Your task to perform on an android device: change the clock display to show seconds Image 0: 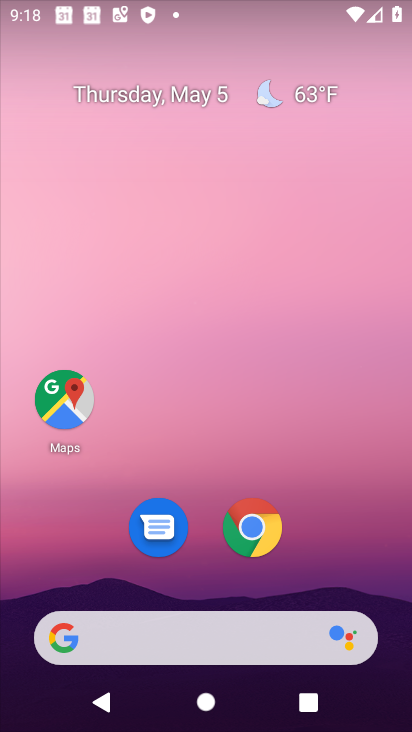
Step 0: drag from (261, 708) to (235, 2)
Your task to perform on an android device: change the clock display to show seconds Image 1: 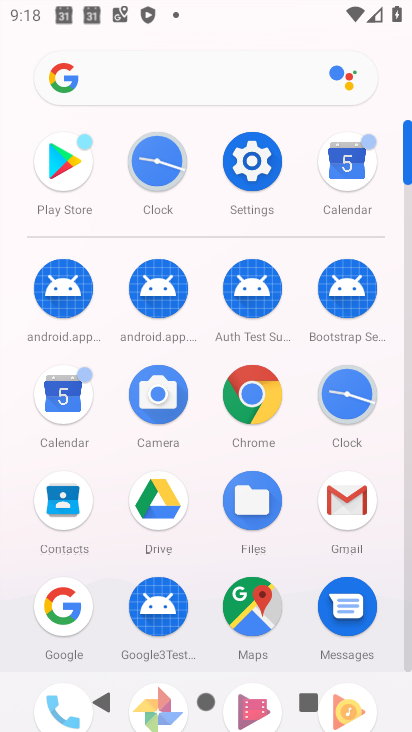
Step 1: click (342, 375)
Your task to perform on an android device: change the clock display to show seconds Image 2: 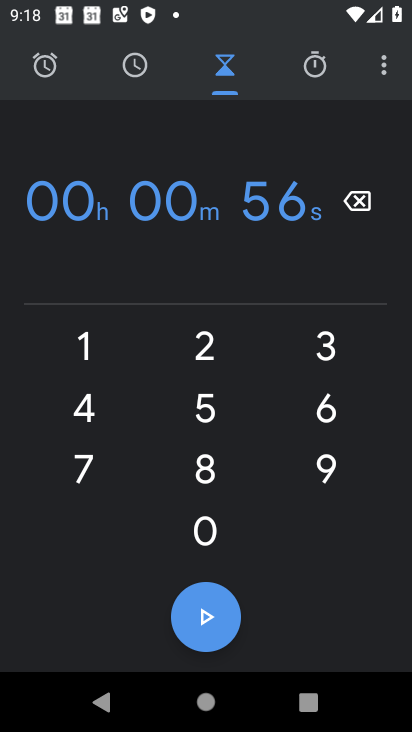
Step 2: click (383, 60)
Your task to perform on an android device: change the clock display to show seconds Image 3: 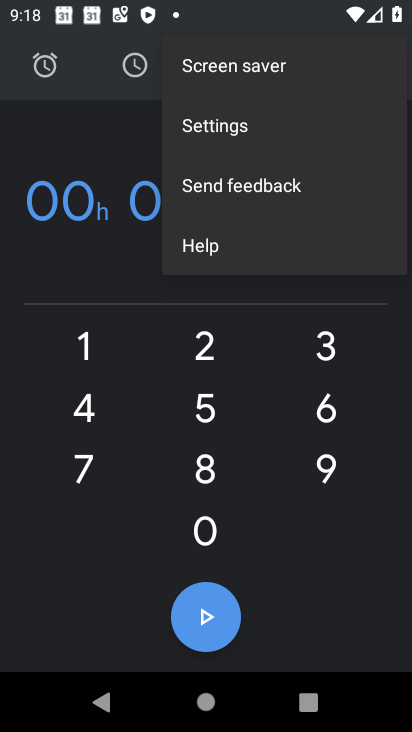
Step 3: click (240, 133)
Your task to perform on an android device: change the clock display to show seconds Image 4: 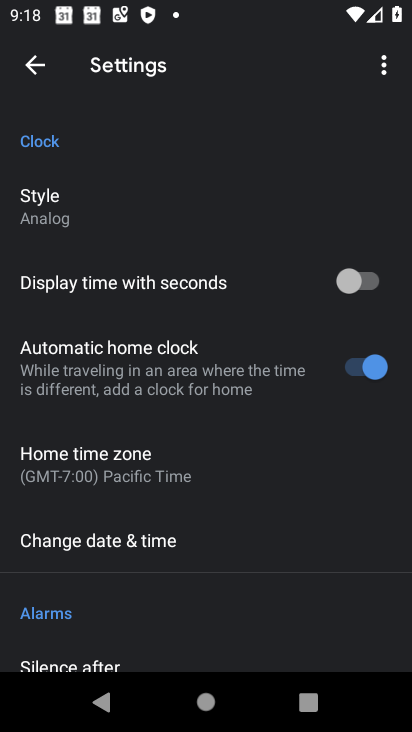
Step 4: click (368, 288)
Your task to perform on an android device: change the clock display to show seconds Image 5: 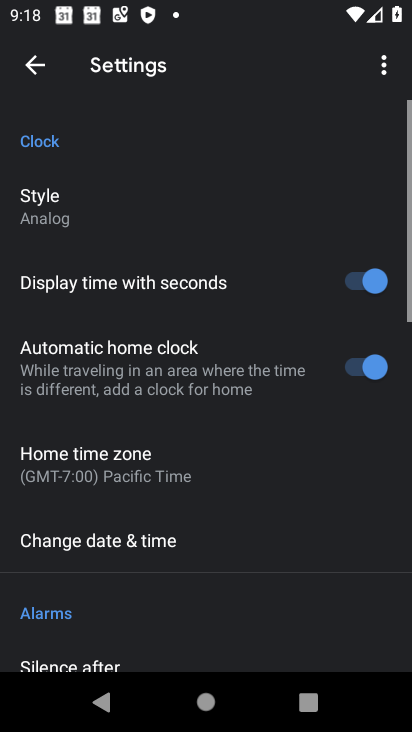
Step 5: task complete